Your task to perform on an android device: turn notification dots off Image 0: 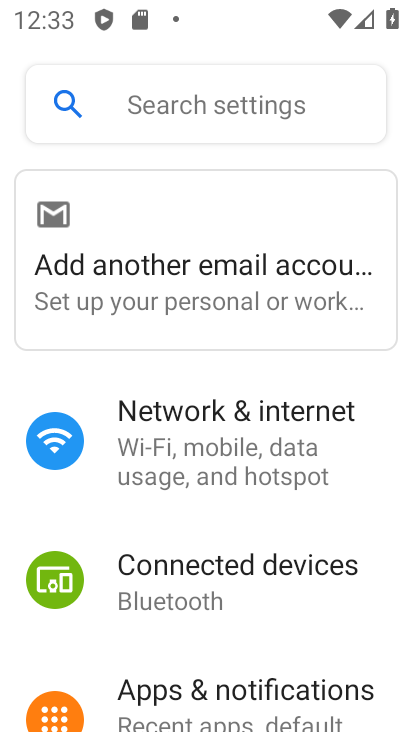
Step 0: press home button
Your task to perform on an android device: turn notification dots off Image 1: 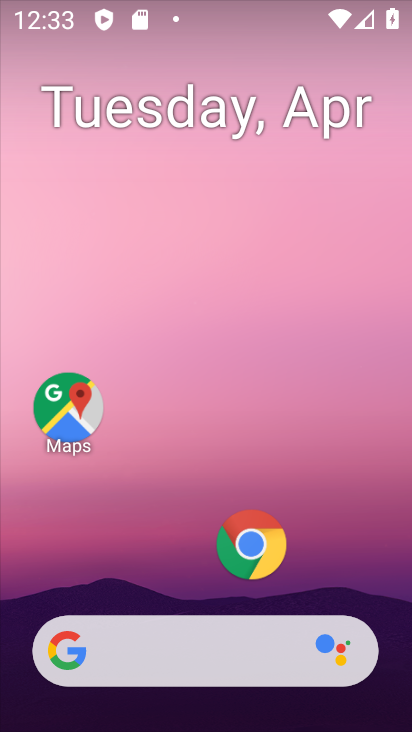
Step 1: drag from (143, 599) to (308, 150)
Your task to perform on an android device: turn notification dots off Image 2: 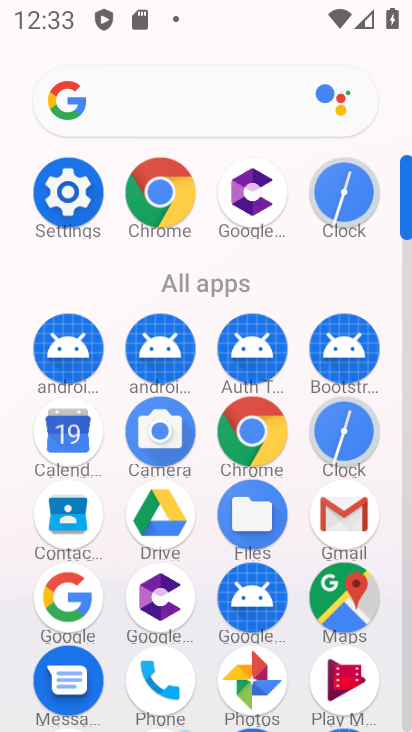
Step 2: click (59, 174)
Your task to perform on an android device: turn notification dots off Image 3: 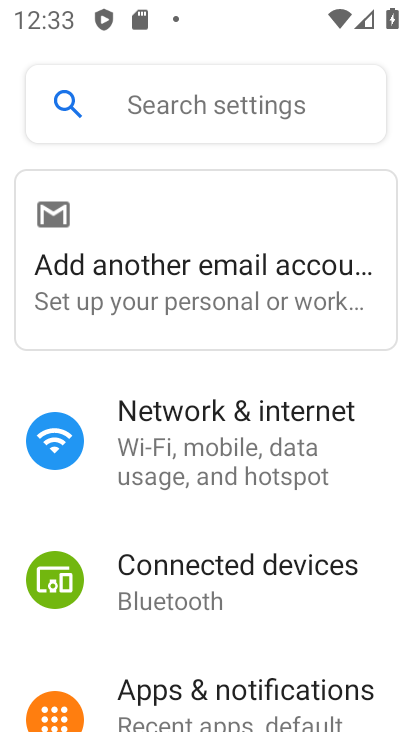
Step 3: click (200, 701)
Your task to perform on an android device: turn notification dots off Image 4: 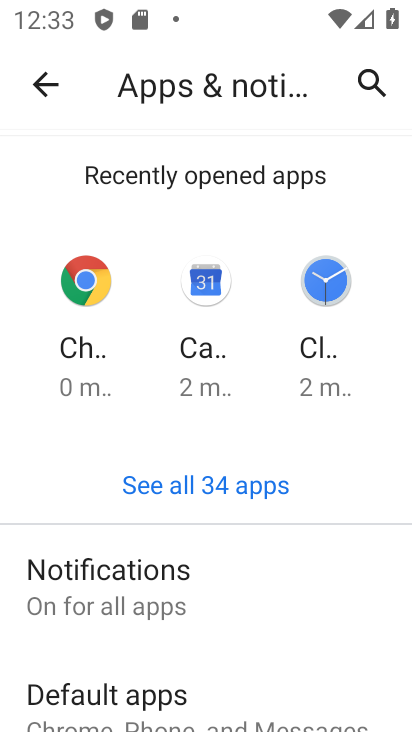
Step 4: press back button
Your task to perform on an android device: turn notification dots off Image 5: 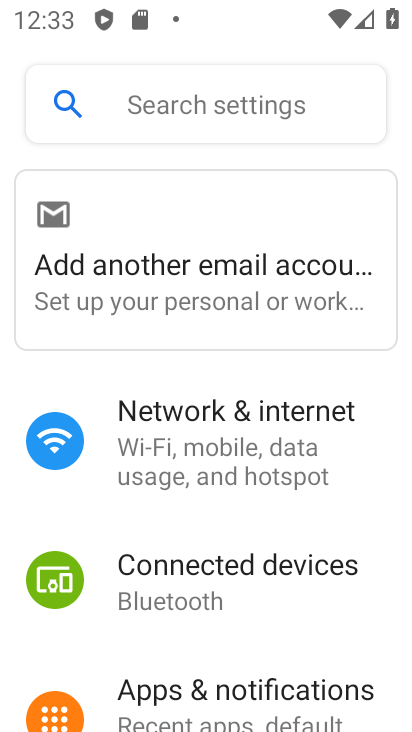
Step 5: click (253, 105)
Your task to perform on an android device: turn notification dots off Image 6: 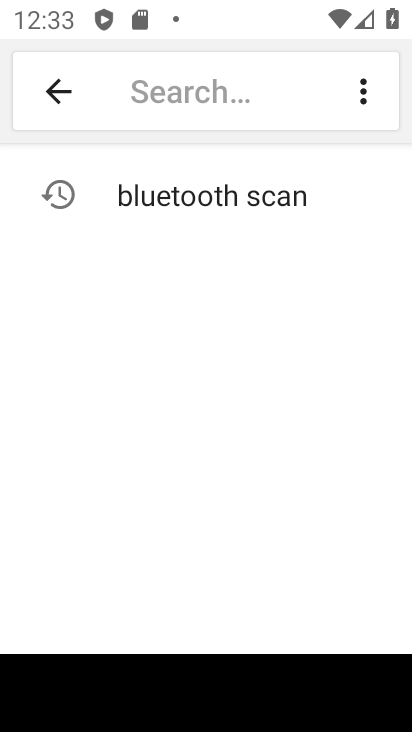
Step 6: click (239, 82)
Your task to perform on an android device: turn notification dots off Image 7: 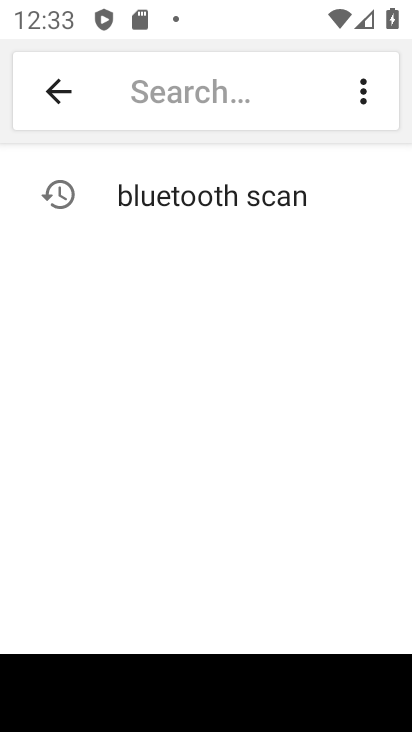
Step 7: type "notification dots "
Your task to perform on an android device: turn notification dots off Image 8: 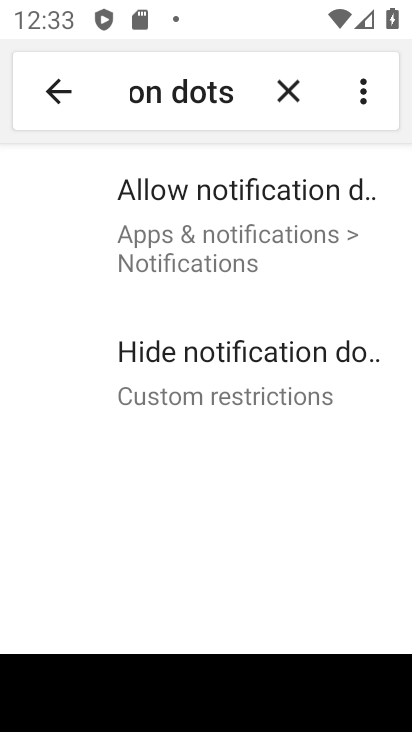
Step 8: click (201, 202)
Your task to perform on an android device: turn notification dots off Image 9: 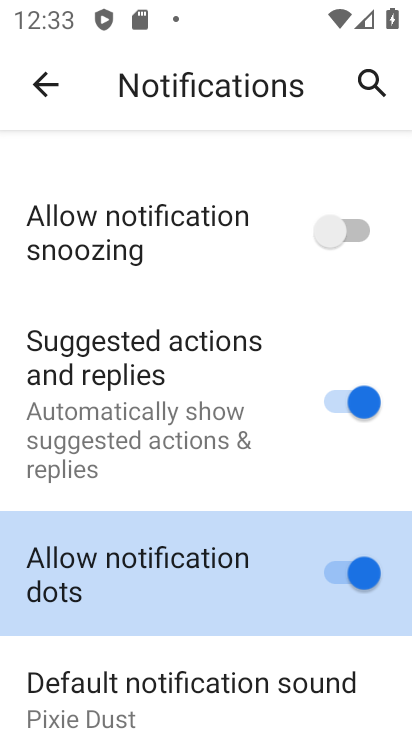
Step 9: click (341, 575)
Your task to perform on an android device: turn notification dots off Image 10: 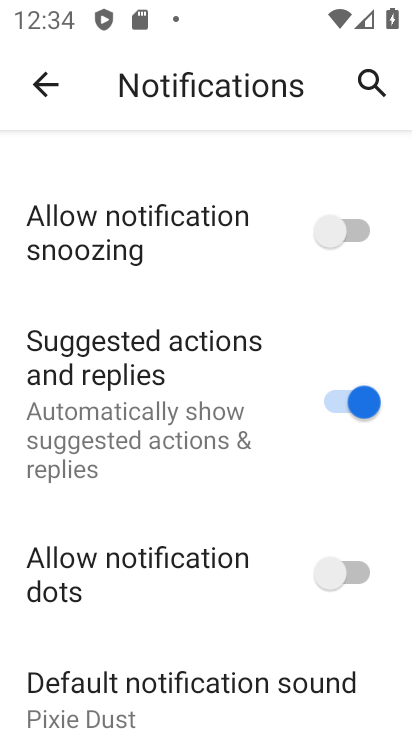
Step 10: task complete